Your task to perform on an android device: turn pop-ups off in chrome Image 0: 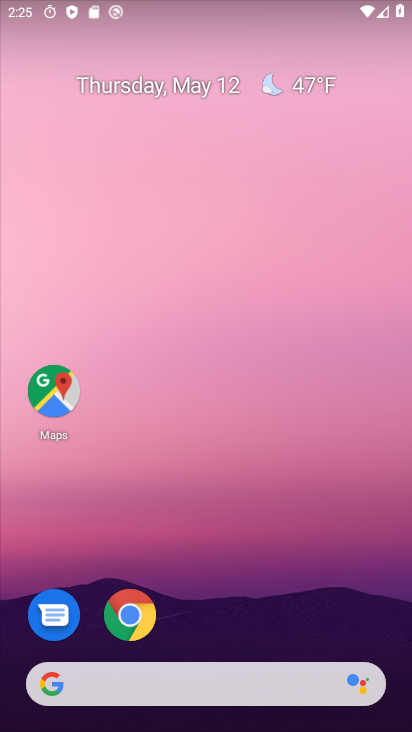
Step 0: click (131, 609)
Your task to perform on an android device: turn pop-ups off in chrome Image 1: 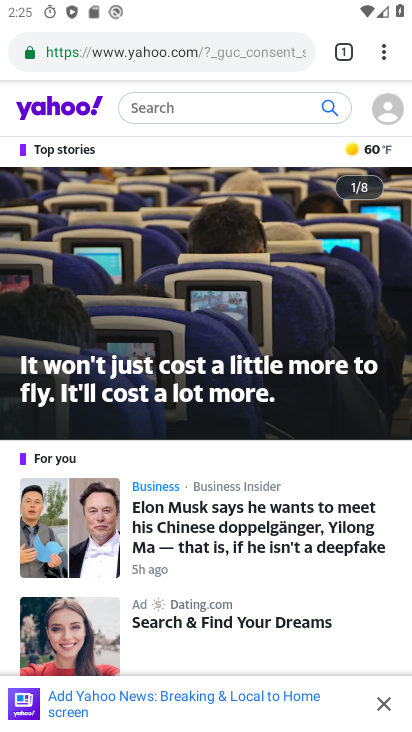
Step 1: click (379, 46)
Your task to perform on an android device: turn pop-ups off in chrome Image 2: 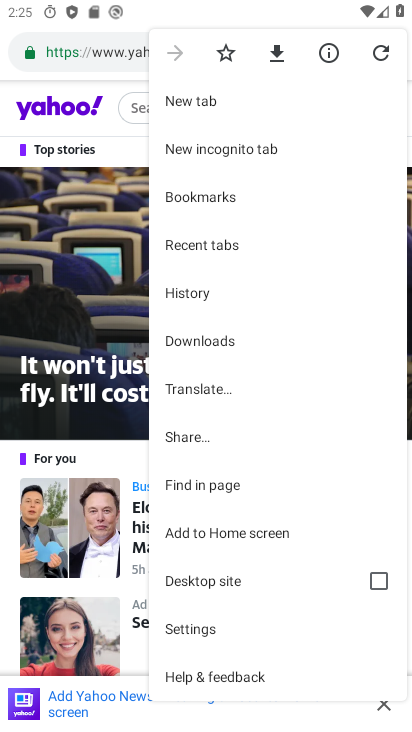
Step 2: click (223, 626)
Your task to perform on an android device: turn pop-ups off in chrome Image 3: 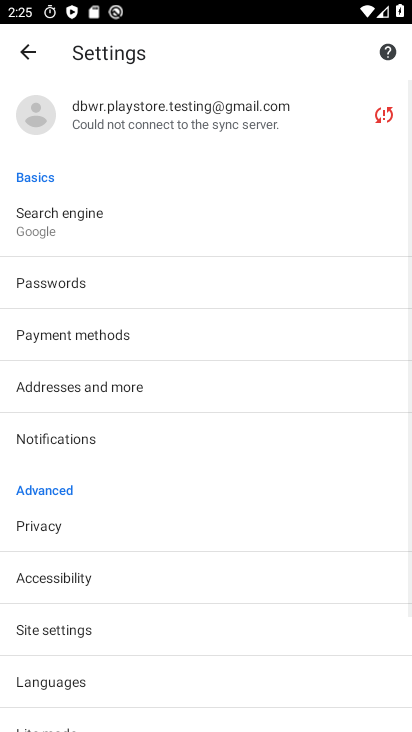
Step 3: drag from (84, 642) to (83, 449)
Your task to perform on an android device: turn pop-ups off in chrome Image 4: 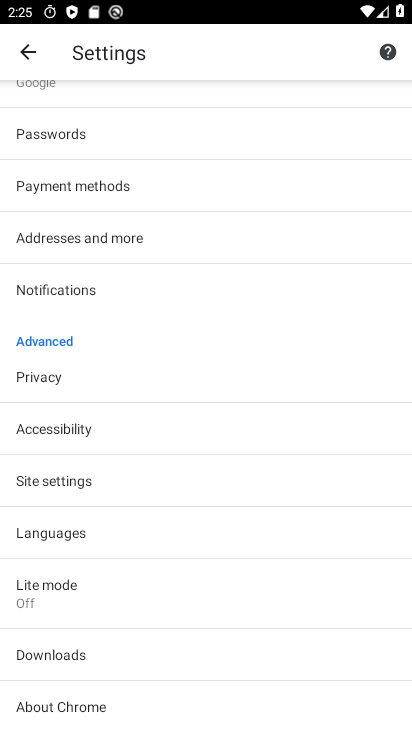
Step 4: click (87, 475)
Your task to perform on an android device: turn pop-ups off in chrome Image 5: 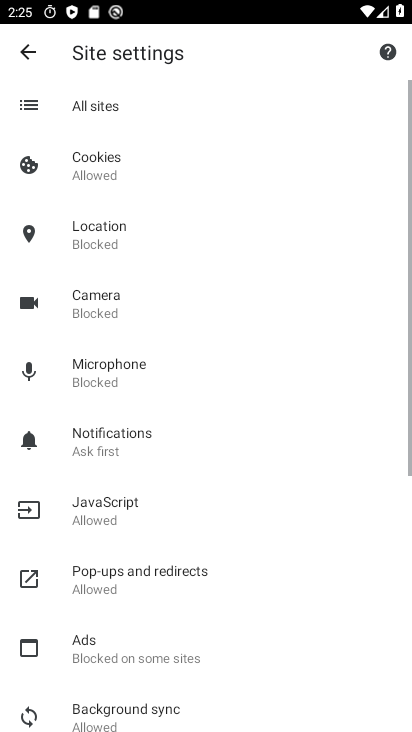
Step 5: click (140, 584)
Your task to perform on an android device: turn pop-ups off in chrome Image 6: 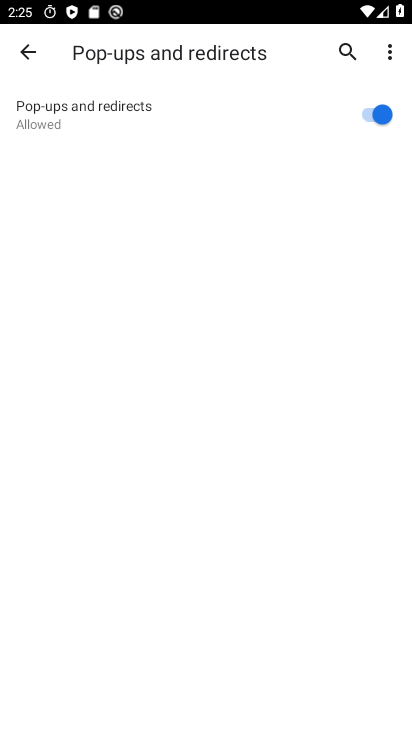
Step 6: click (386, 107)
Your task to perform on an android device: turn pop-ups off in chrome Image 7: 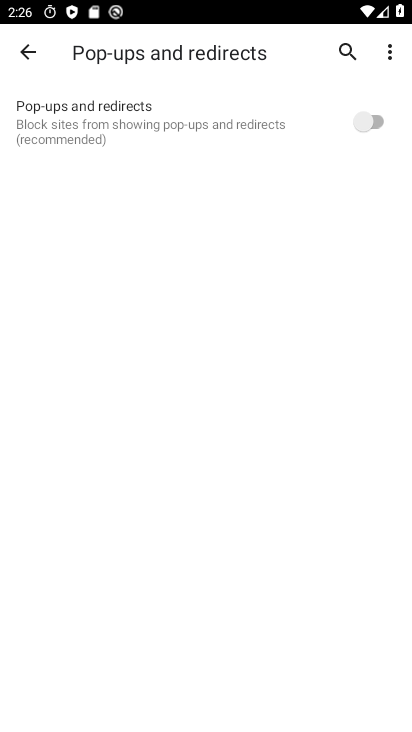
Step 7: task complete